Your task to perform on an android device: change your default location settings in chrome Image 0: 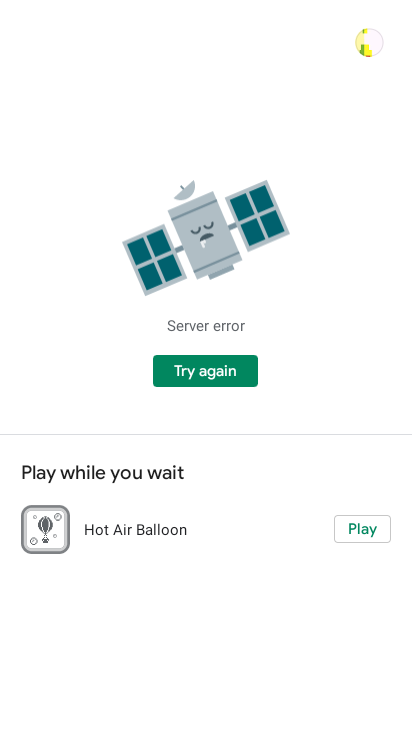
Step 0: press home button
Your task to perform on an android device: change your default location settings in chrome Image 1: 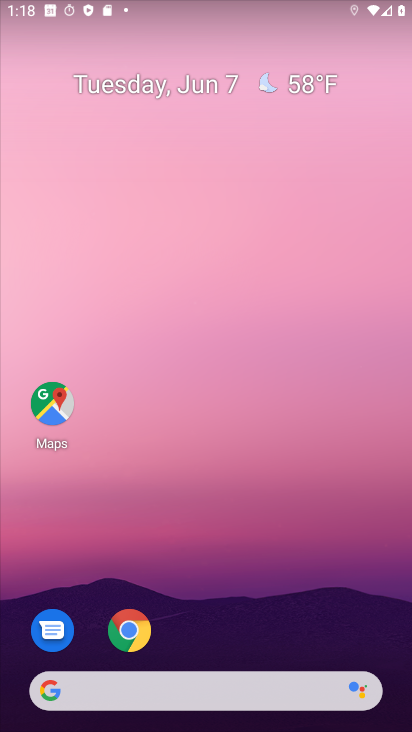
Step 1: click (123, 628)
Your task to perform on an android device: change your default location settings in chrome Image 2: 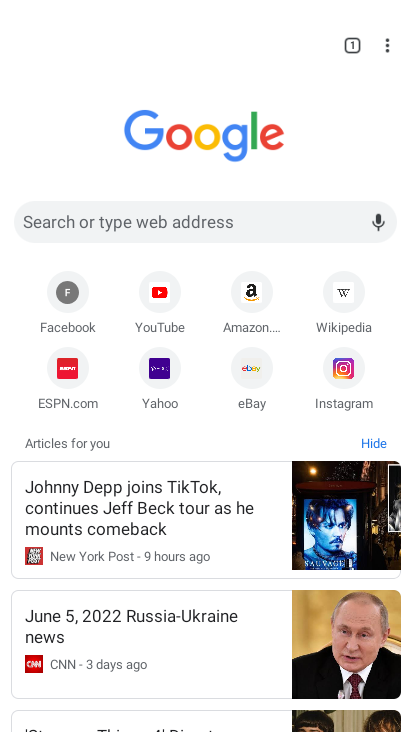
Step 2: click (382, 43)
Your task to perform on an android device: change your default location settings in chrome Image 3: 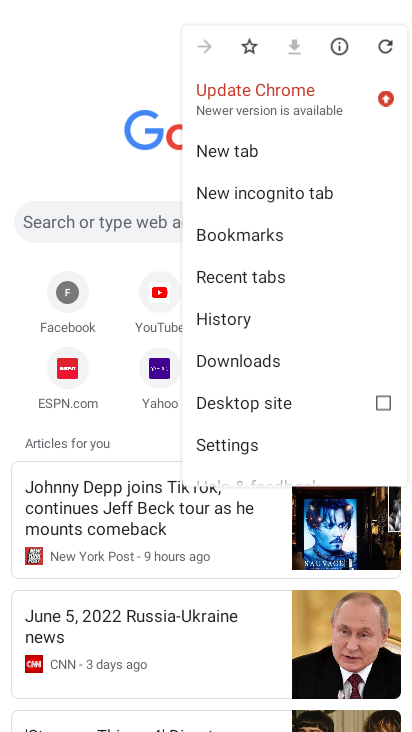
Step 3: click (216, 450)
Your task to perform on an android device: change your default location settings in chrome Image 4: 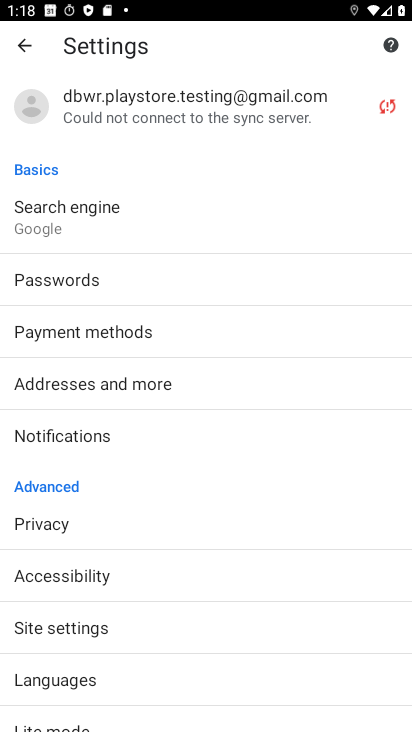
Step 4: drag from (98, 668) to (100, 600)
Your task to perform on an android device: change your default location settings in chrome Image 5: 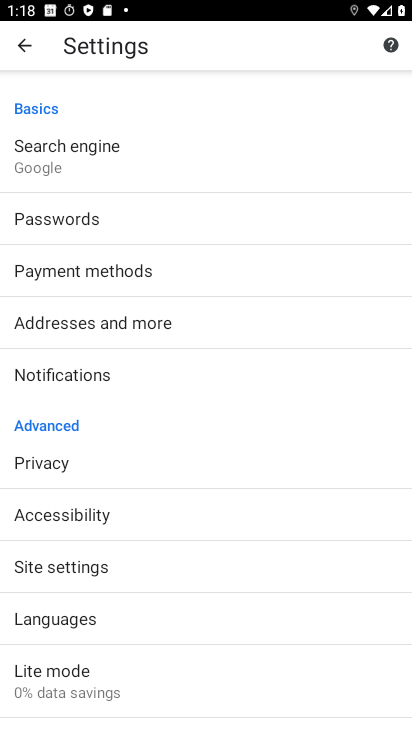
Step 5: click (81, 567)
Your task to perform on an android device: change your default location settings in chrome Image 6: 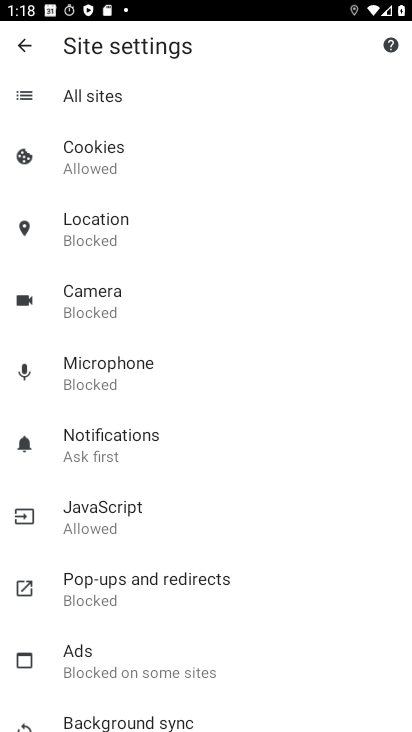
Step 6: click (87, 237)
Your task to perform on an android device: change your default location settings in chrome Image 7: 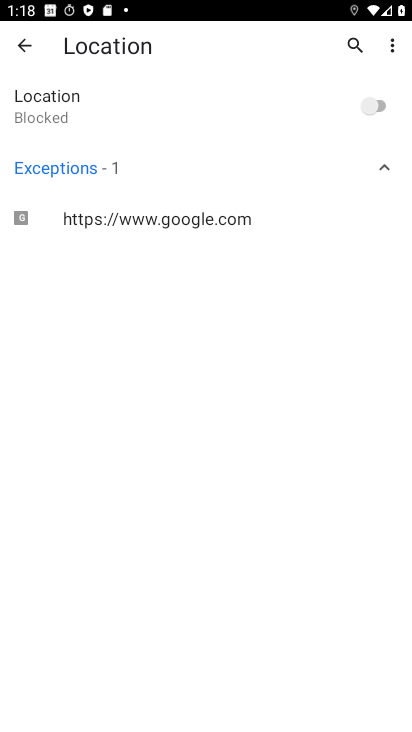
Step 7: click (384, 111)
Your task to perform on an android device: change your default location settings in chrome Image 8: 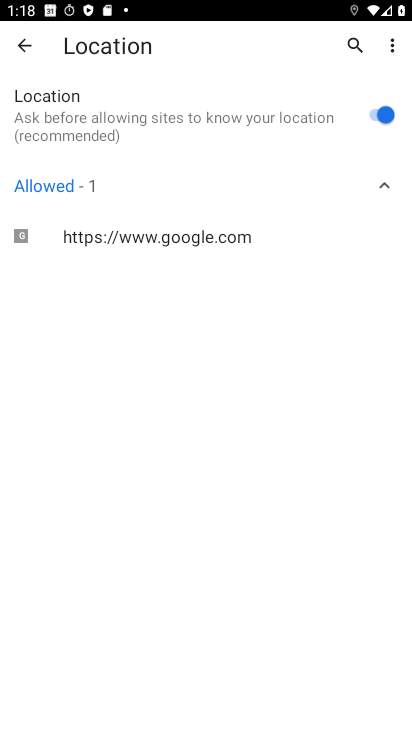
Step 8: task complete